Your task to perform on an android device: change the clock display to analog Image 0: 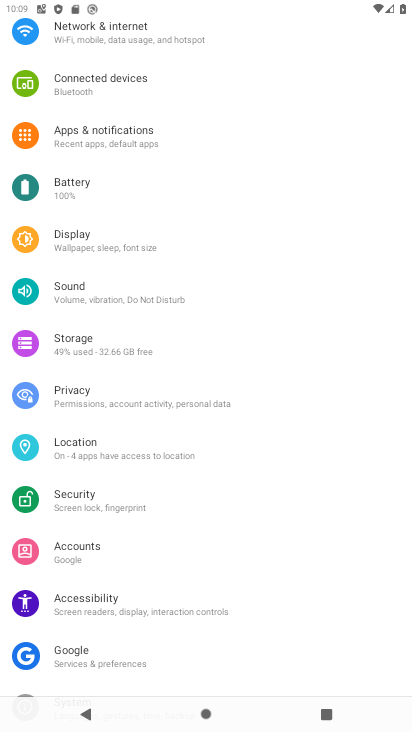
Step 0: press home button
Your task to perform on an android device: change the clock display to analog Image 1: 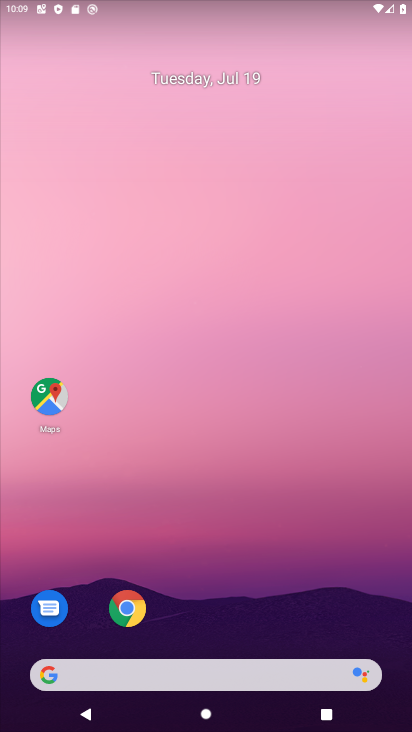
Step 1: drag from (224, 641) to (214, 143)
Your task to perform on an android device: change the clock display to analog Image 2: 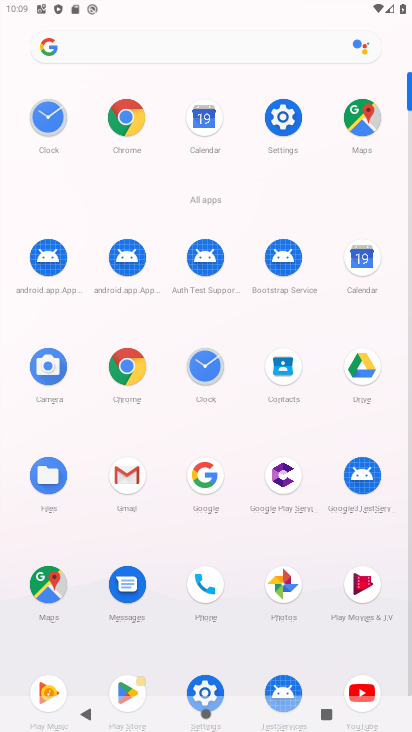
Step 2: click (196, 377)
Your task to perform on an android device: change the clock display to analog Image 3: 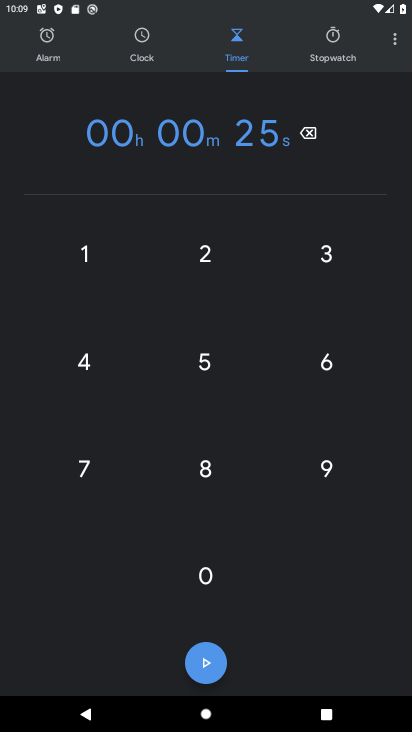
Step 3: click (390, 42)
Your task to perform on an android device: change the clock display to analog Image 4: 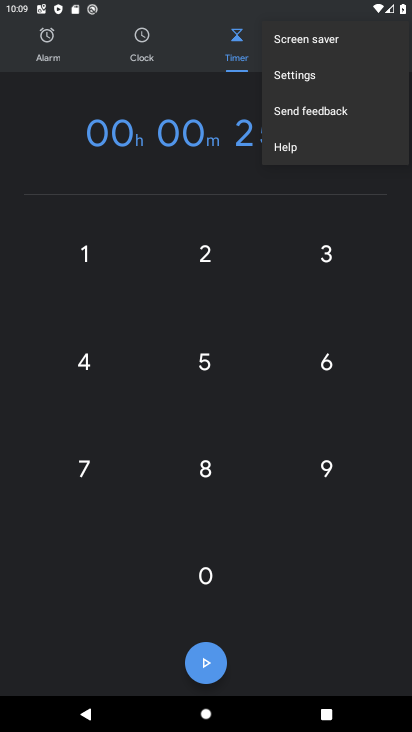
Step 4: click (318, 78)
Your task to perform on an android device: change the clock display to analog Image 5: 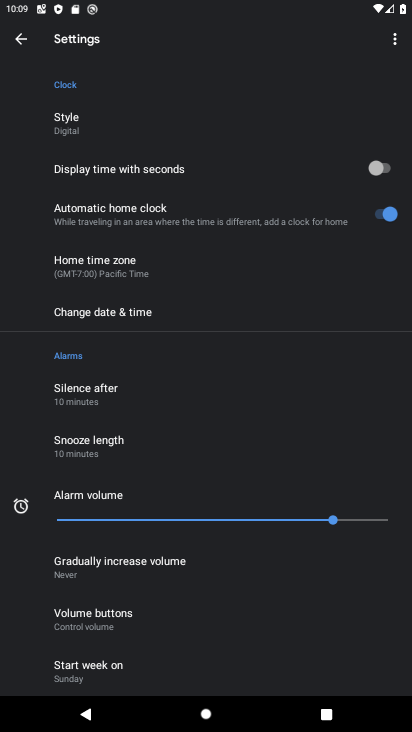
Step 5: click (77, 127)
Your task to perform on an android device: change the clock display to analog Image 6: 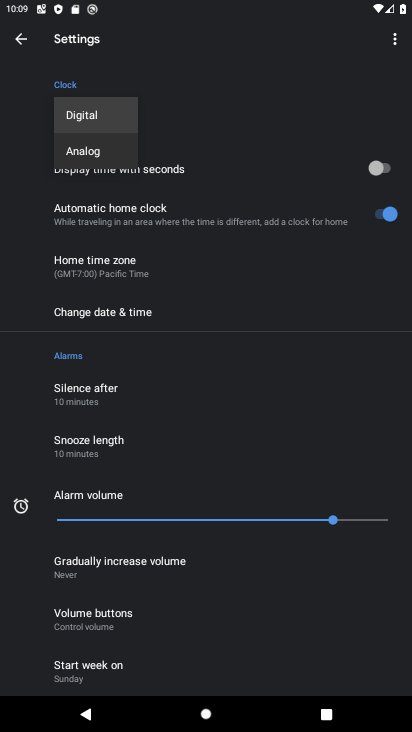
Step 6: click (79, 144)
Your task to perform on an android device: change the clock display to analog Image 7: 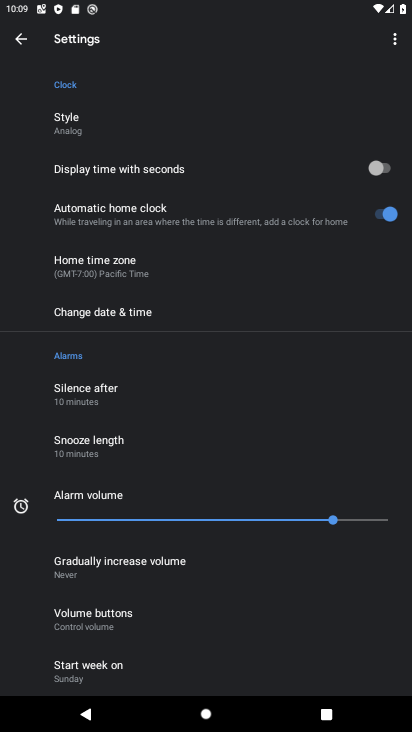
Step 7: task complete